Your task to perform on an android device: show emergency info Image 0: 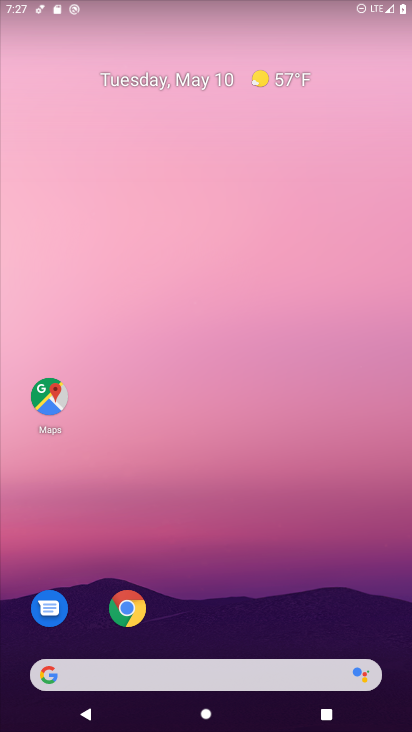
Step 0: drag from (343, 604) to (238, 25)
Your task to perform on an android device: show emergency info Image 1: 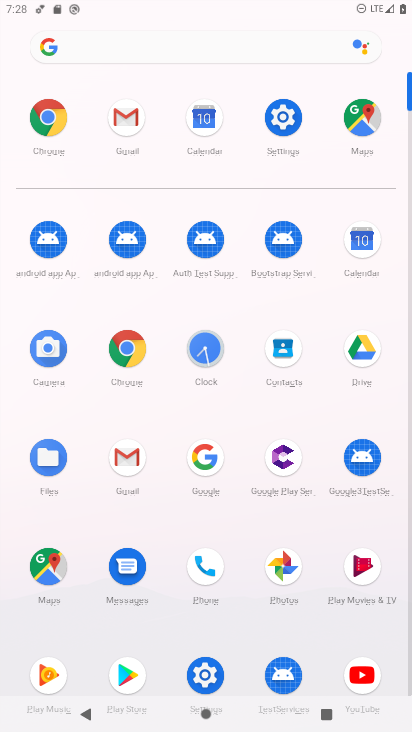
Step 1: click (177, 677)
Your task to perform on an android device: show emergency info Image 2: 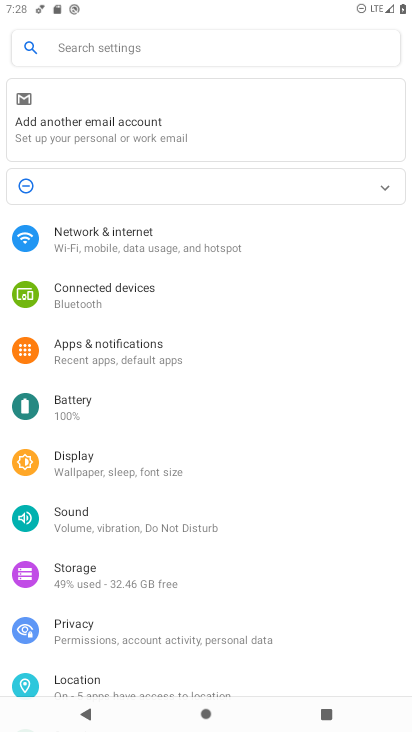
Step 2: drag from (167, 640) to (269, 1)
Your task to perform on an android device: show emergency info Image 3: 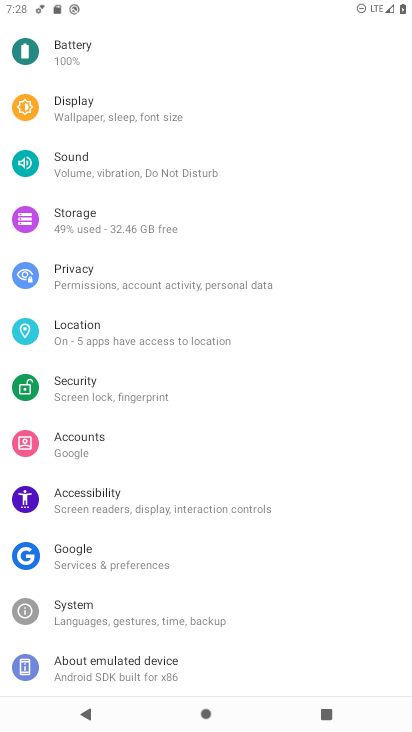
Step 3: click (145, 682)
Your task to perform on an android device: show emergency info Image 4: 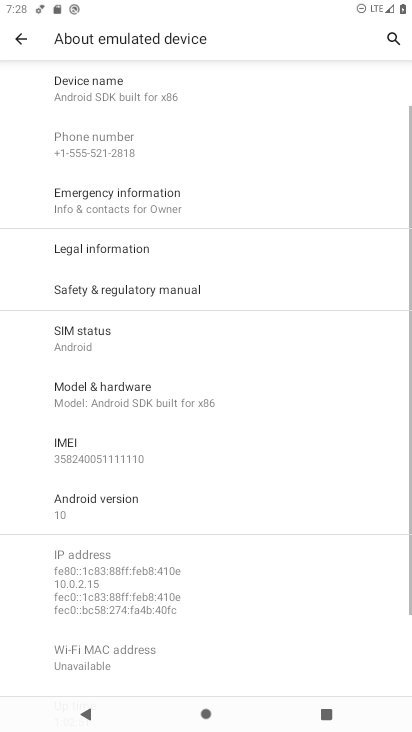
Step 4: click (139, 211)
Your task to perform on an android device: show emergency info Image 5: 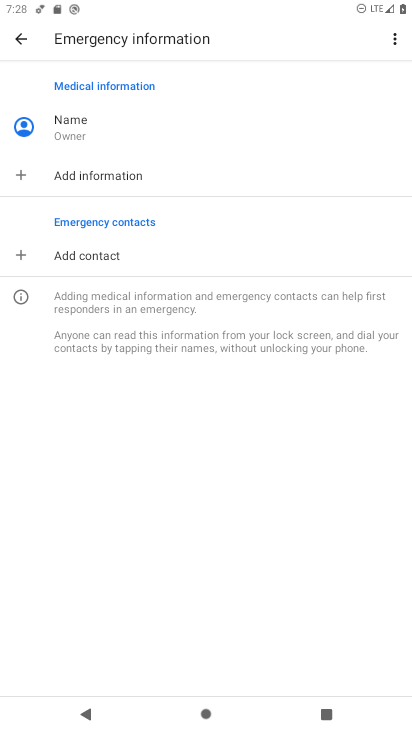
Step 5: task complete